Your task to perform on an android device: delete a single message in the gmail app Image 0: 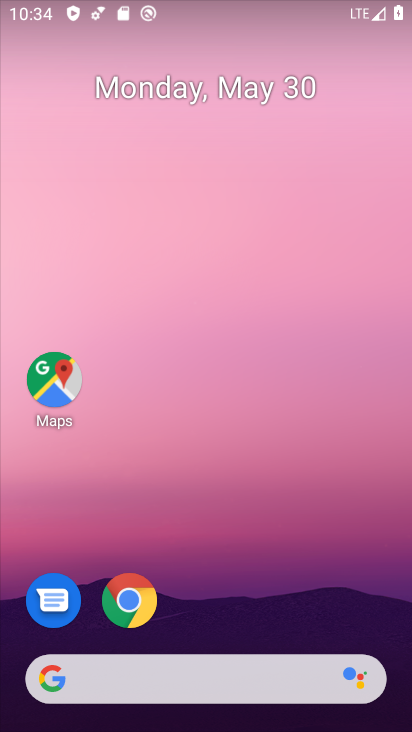
Step 0: drag from (302, 170) to (298, 74)
Your task to perform on an android device: delete a single message in the gmail app Image 1: 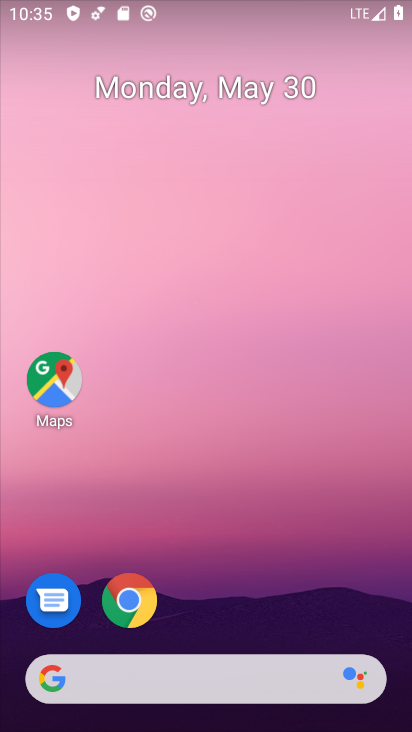
Step 1: drag from (285, 624) to (307, 147)
Your task to perform on an android device: delete a single message in the gmail app Image 2: 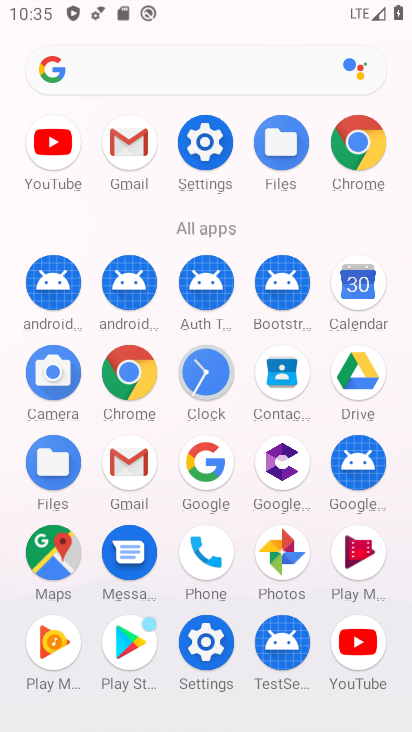
Step 2: click (123, 471)
Your task to perform on an android device: delete a single message in the gmail app Image 3: 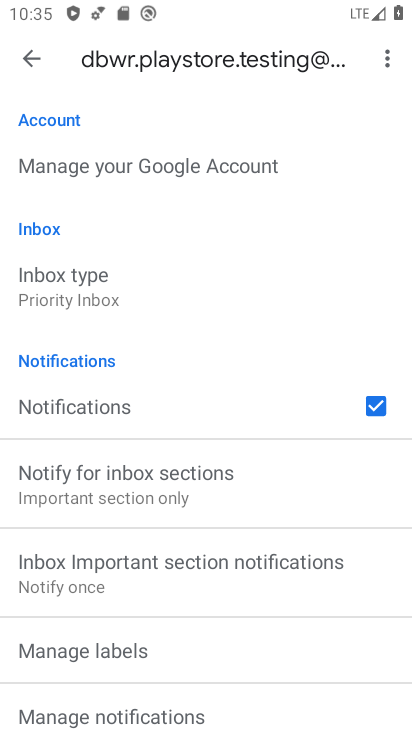
Step 3: click (21, 60)
Your task to perform on an android device: delete a single message in the gmail app Image 4: 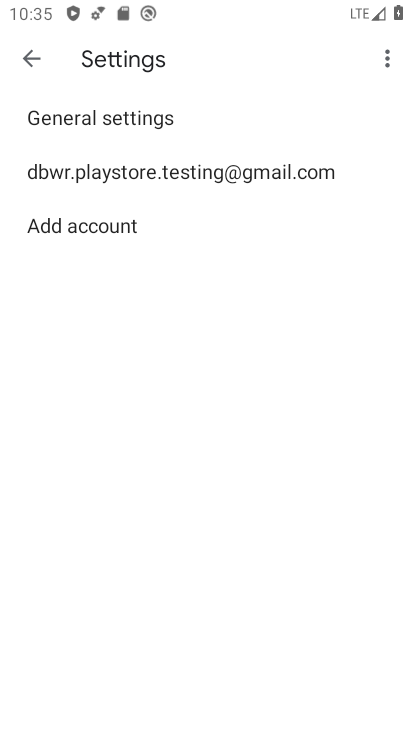
Step 4: click (22, 56)
Your task to perform on an android device: delete a single message in the gmail app Image 5: 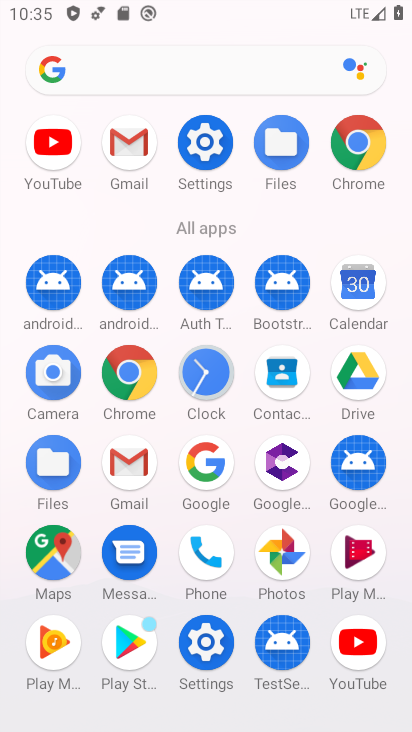
Step 5: click (130, 458)
Your task to perform on an android device: delete a single message in the gmail app Image 6: 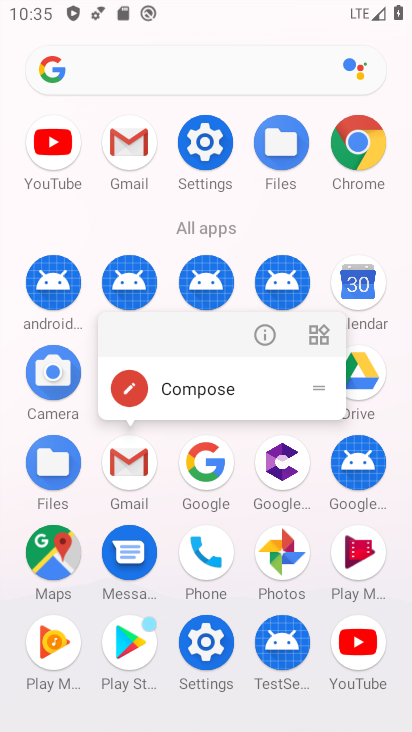
Step 6: click (130, 458)
Your task to perform on an android device: delete a single message in the gmail app Image 7: 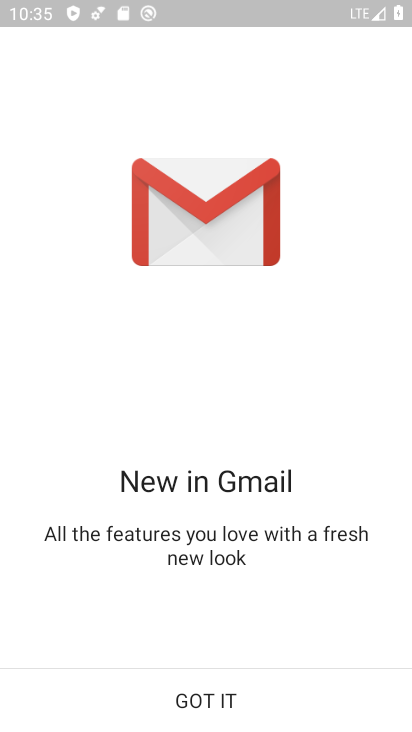
Step 7: click (211, 696)
Your task to perform on an android device: delete a single message in the gmail app Image 8: 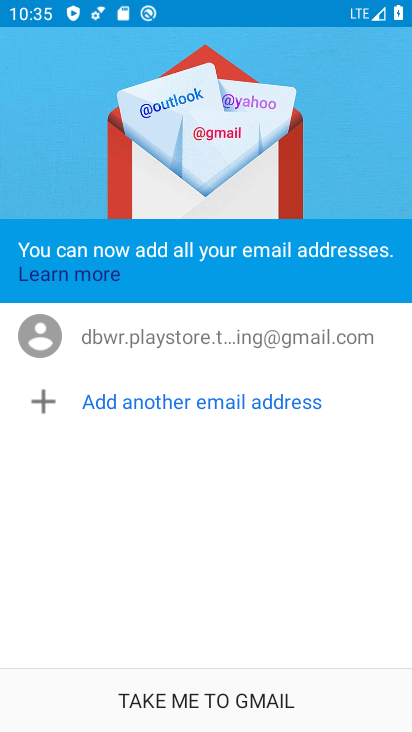
Step 8: click (211, 696)
Your task to perform on an android device: delete a single message in the gmail app Image 9: 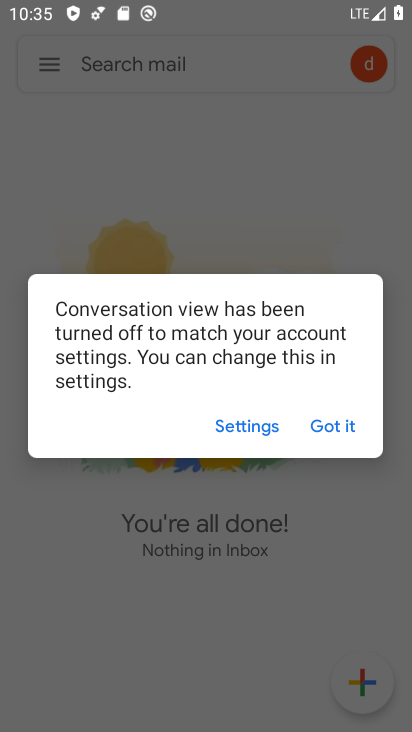
Step 9: click (320, 429)
Your task to perform on an android device: delete a single message in the gmail app Image 10: 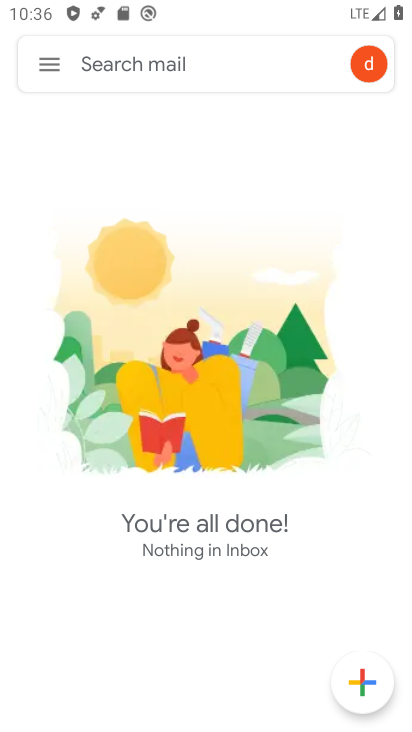
Step 10: click (44, 66)
Your task to perform on an android device: delete a single message in the gmail app Image 11: 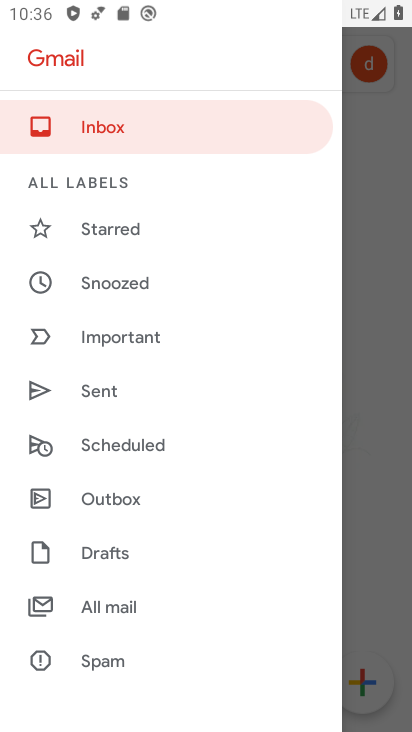
Step 11: click (364, 413)
Your task to perform on an android device: delete a single message in the gmail app Image 12: 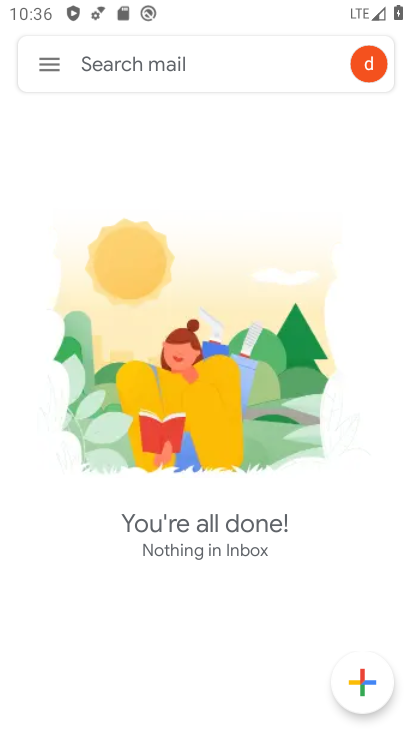
Step 12: task complete